Your task to perform on an android device: install app "Pluto TV - Live TV and Movies" Image 0: 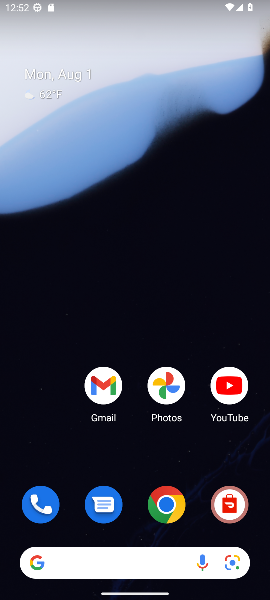
Step 0: drag from (138, 564) to (182, 126)
Your task to perform on an android device: install app "Pluto TV - Live TV and Movies" Image 1: 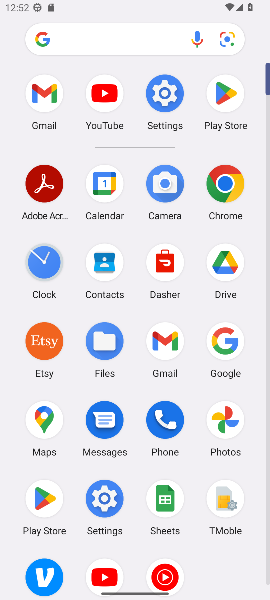
Step 1: click (228, 80)
Your task to perform on an android device: install app "Pluto TV - Live TV and Movies" Image 2: 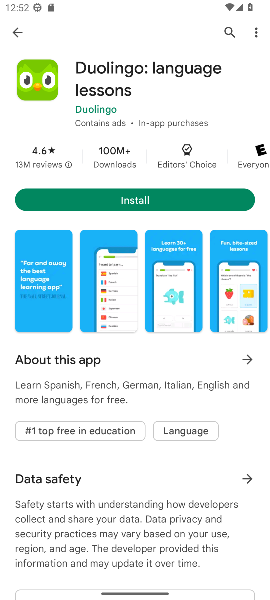
Step 2: click (228, 28)
Your task to perform on an android device: install app "Pluto TV - Live TV and Movies" Image 3: 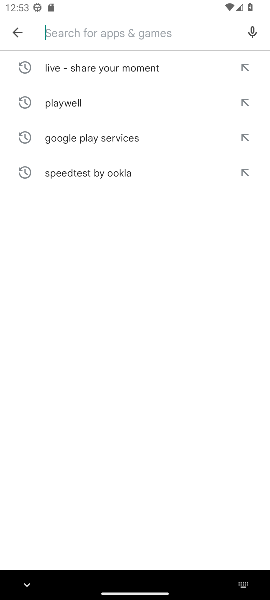
Step 3: type "pluto tv - live tv and movies"
Your task to perform on an android device: install app "Pluto TV - Live TV and Movies" Image 4: 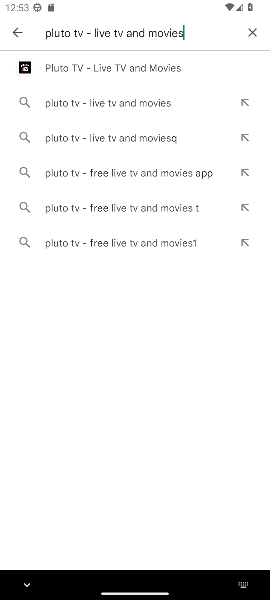
Step 4: click (75, 64)
Your task to perform on an android device: install app "Pluto TV - Live TV and Movies" Image 5: 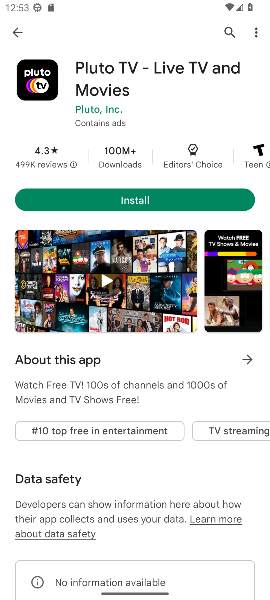
Step 5: click (188, 198)
Your task to perform on an android device: install app "Pluto TV - Live TV and Movies" Image 6: 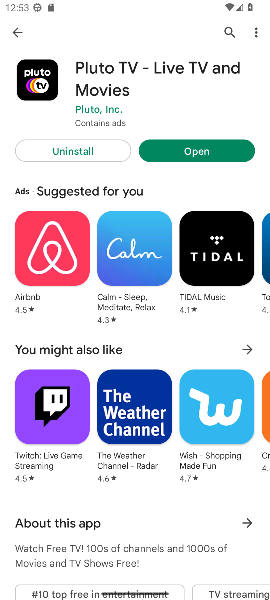
Step 6: task complete